Your task to perform on an android device: What is the news today? Image 0: 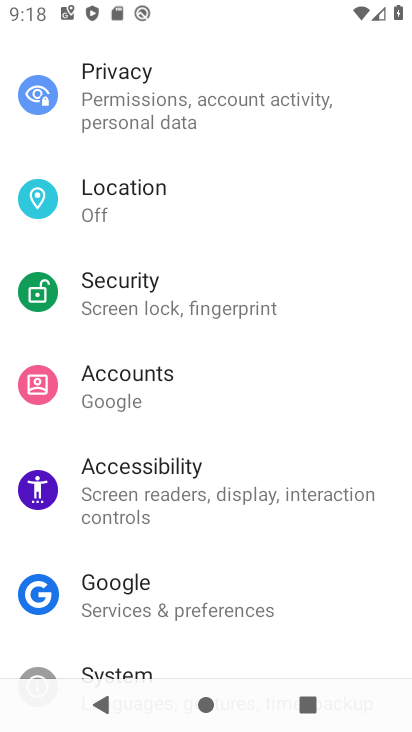
Step 0: press home button
Your task to perform on an android device: What is the news today? Image 1: 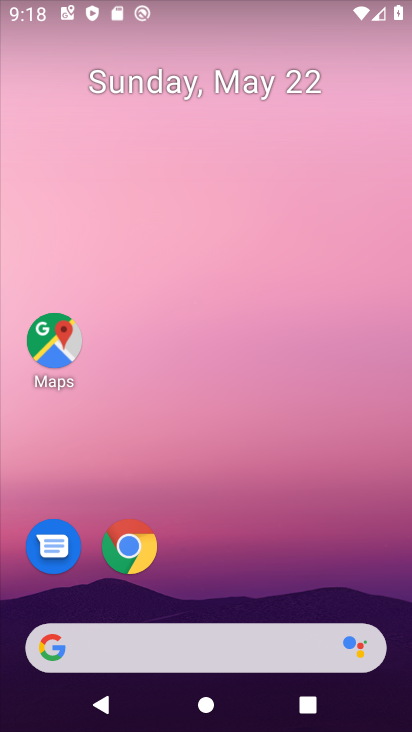
Step 1: click (228, 638)
Your task to perform on an android device: What is the news today? Image 2: 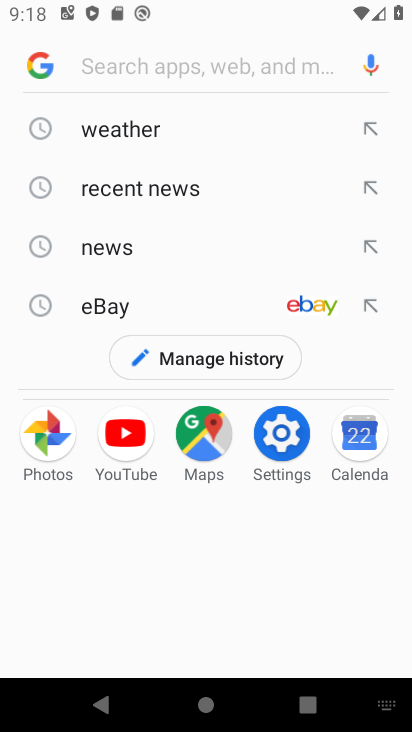
Step 2: click (135, 75)
Your task to perform on an android device: What is the news today? Image 3: 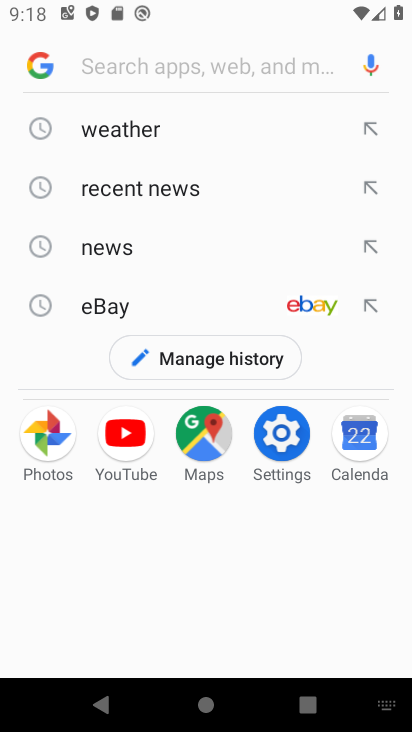
Step 3: click (128, 234)
Your task to perform on an android device: What is the news today? Image 4: 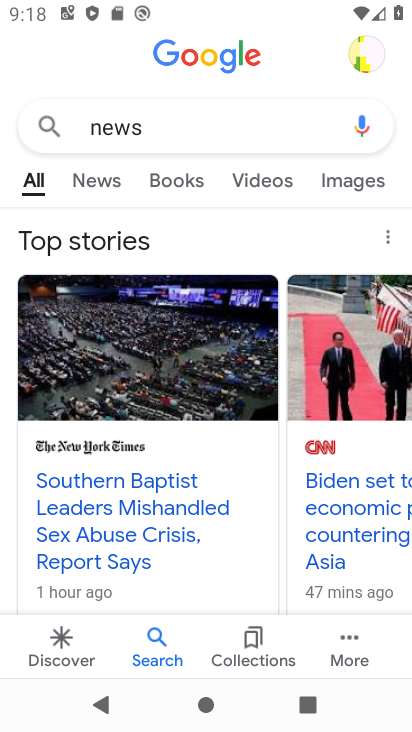
Step 4: task complete